Your task to perform on an android device: move a message to another label in the gmail app Image 0: 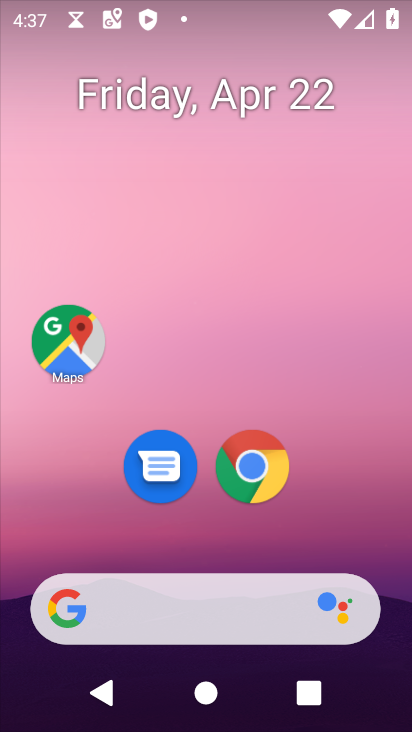
Step 0: drag from (365, 540) to (297, 193)
Your task to perform on an android device: move a message to another label in the gmail app Image 1: 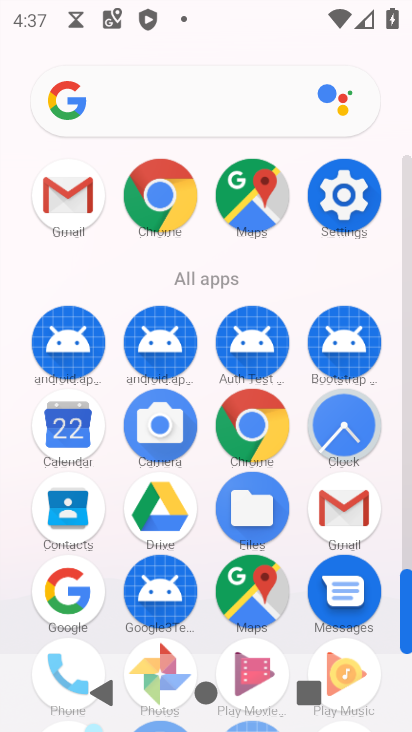
Step 1: click (341, 527)
Your task to perform on an android device: move a message to another label in the gmail app Image 2: 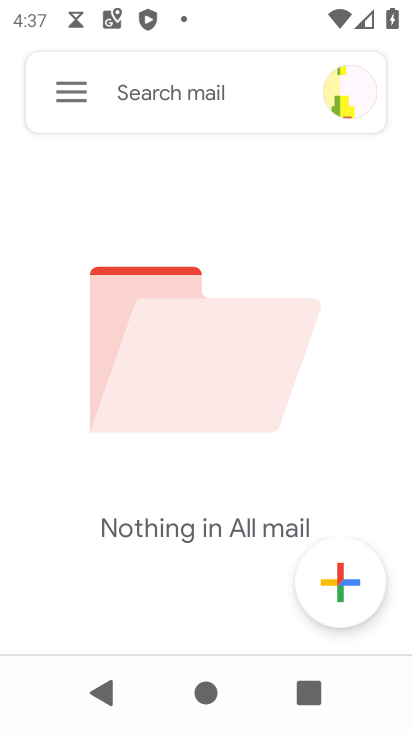
Step 2: task complete